Your task to perform on an android device: turn off priority inbox in the gmail app Image 0: 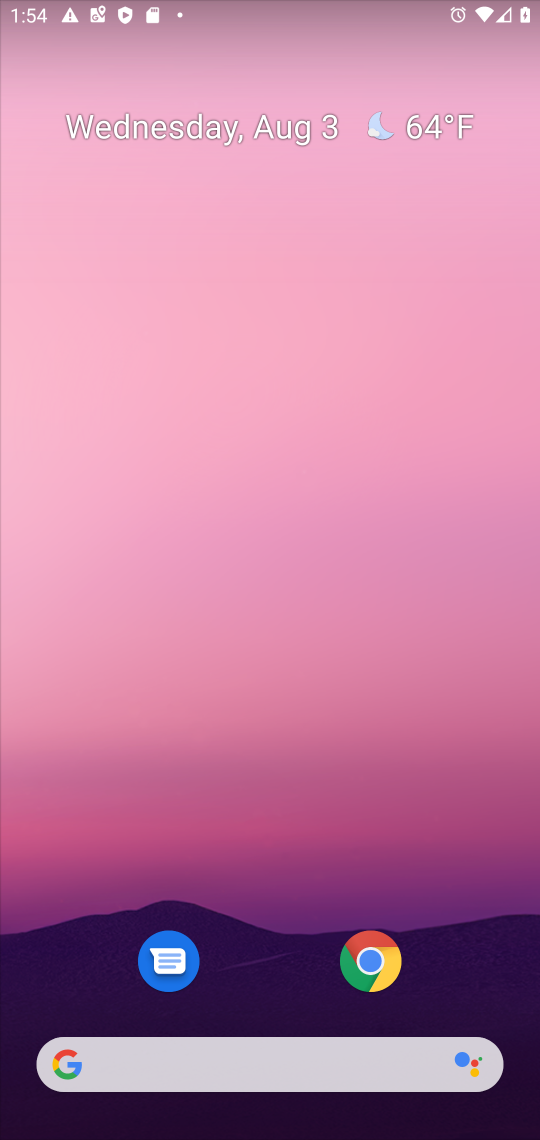
Step 0: drag from (288, 836) to (319, 0)
Your task to perform on an android device: turn off priority inbox in the gmail app Image 1: 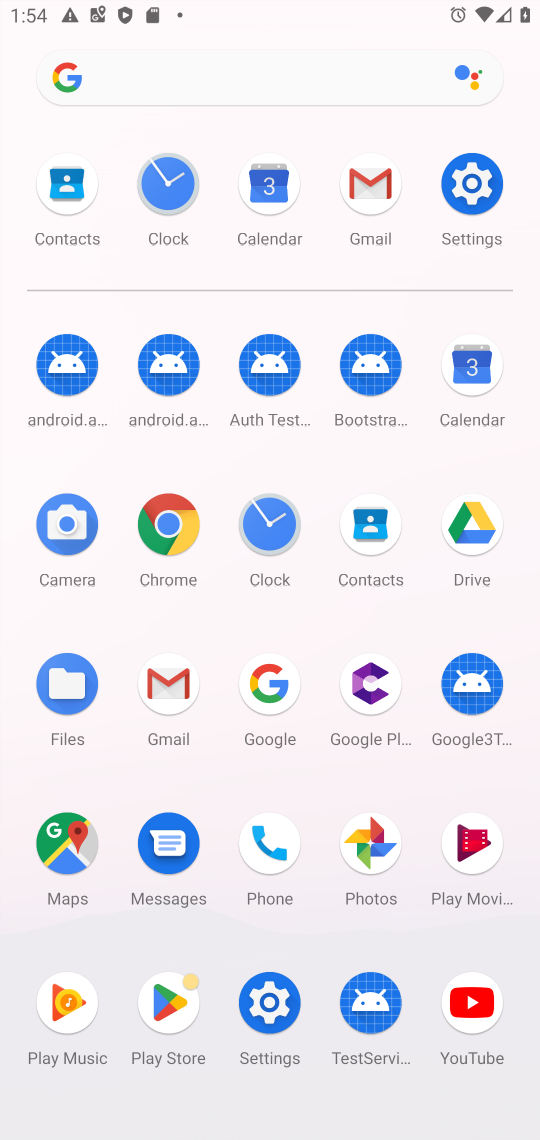
Step 1: click (364, 203)
Your task to perform on an android device: turn off priority inbox in the gmail app Image 2: 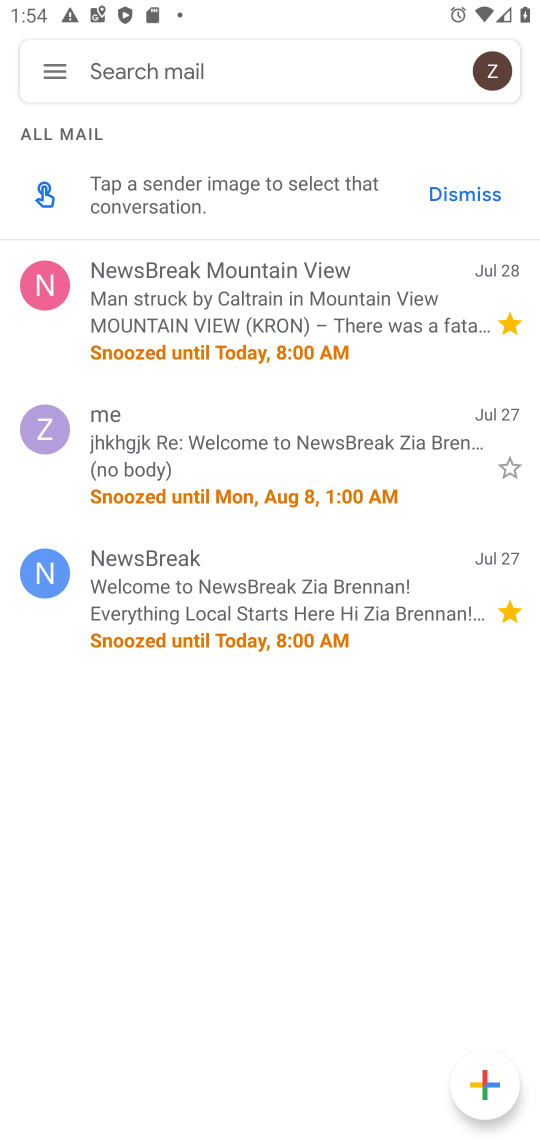
Step 2: click (64, 79)
Your task to perform on an android device: turn off priority inbox in the gmail app Image 3: 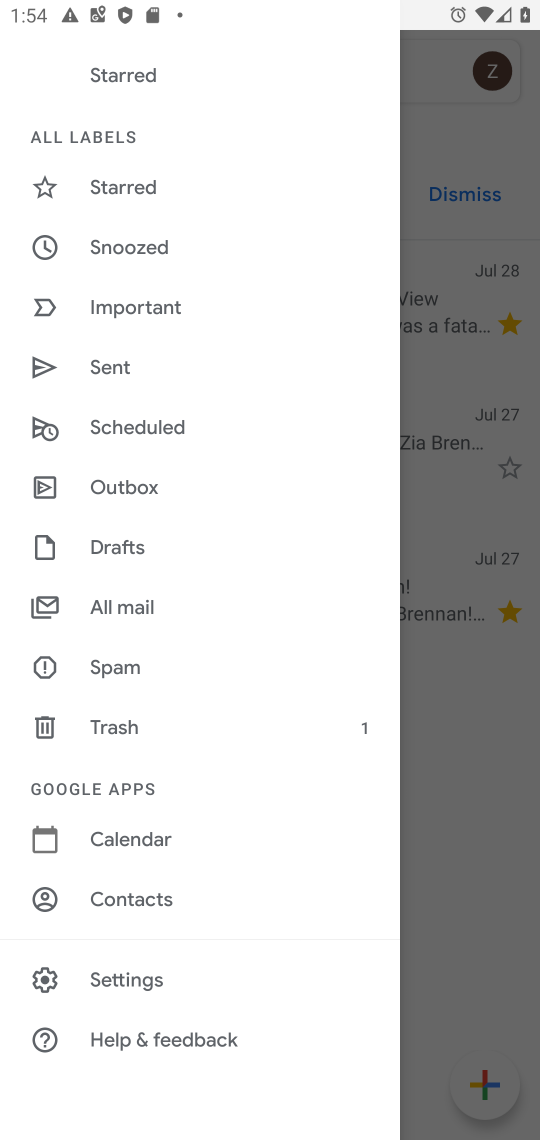
Step 3: click (124, 972)
Your task to perform on an android device: turn off priority inbox in the gmail app Image 4: 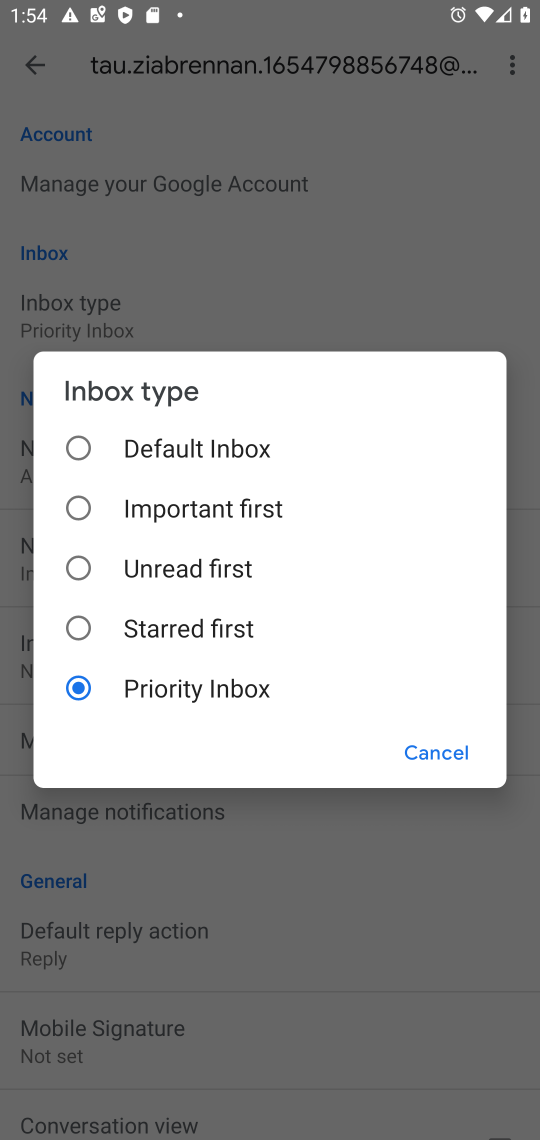
Step 4: click (68, 453)
Your task to perform on an android device: turn off priority inbox in the gmail app Image 5: 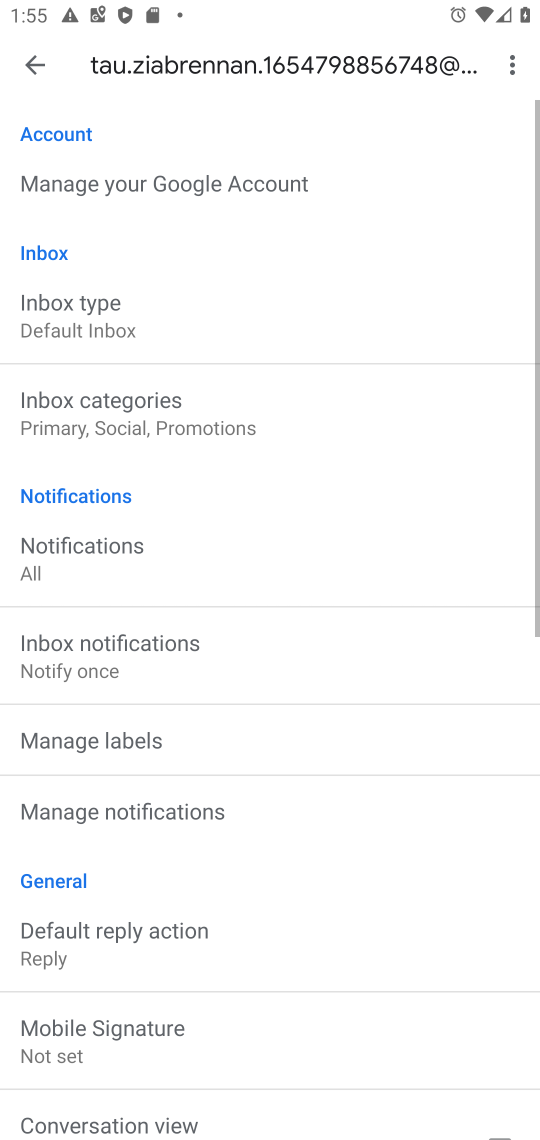
Step 5: task complete